Your task to perform on an android device: Open my contact list Image 0: 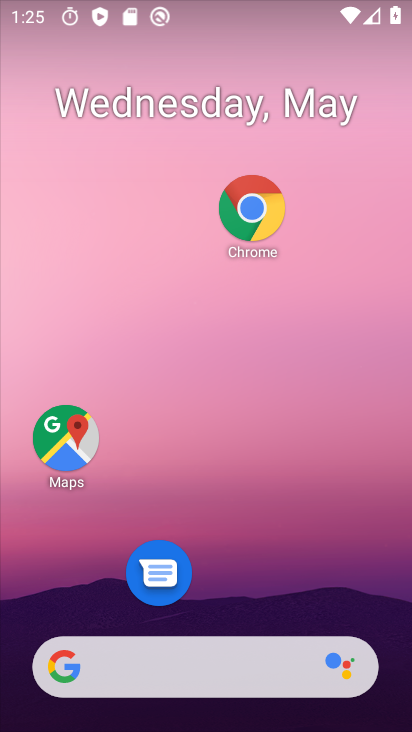
Step 0: drag from (256, 498) to (234, 108)
Your task to perform on an android device: Open my contact list Image 1: 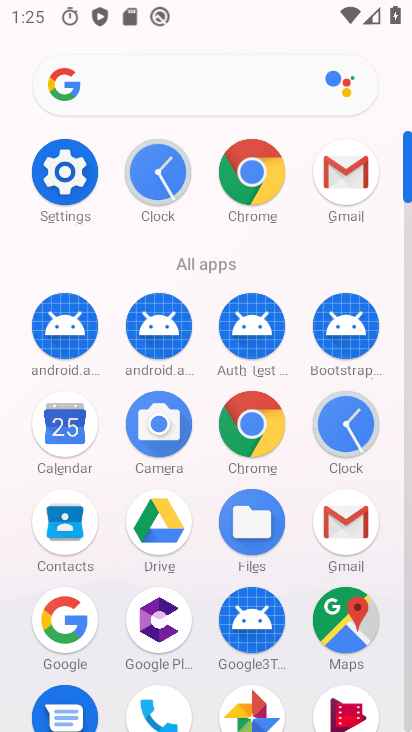
Step 1: click (75, 493)
Your task to perform on an android device: Open my contact list Image 2: 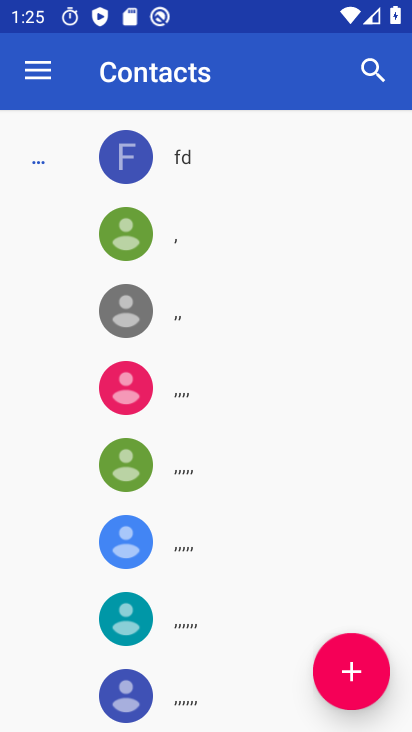
Step 2: task complete